Your task to perform on an android device: turn off wifi Image 0: 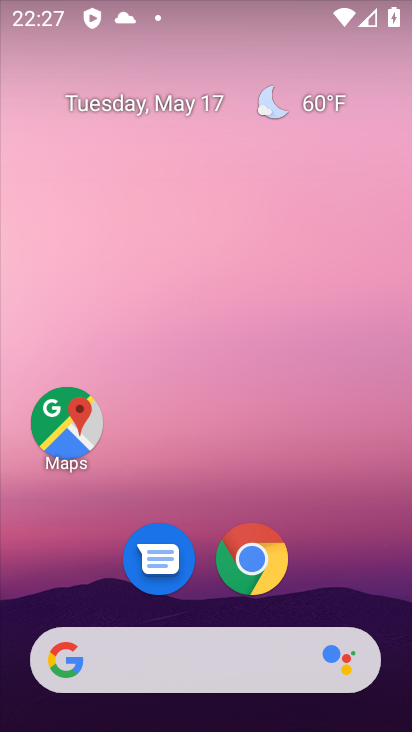
Step 0: drag from (350, 572) to (352, 168)
Your task to perform on an android device: turn off wifi Image 1: 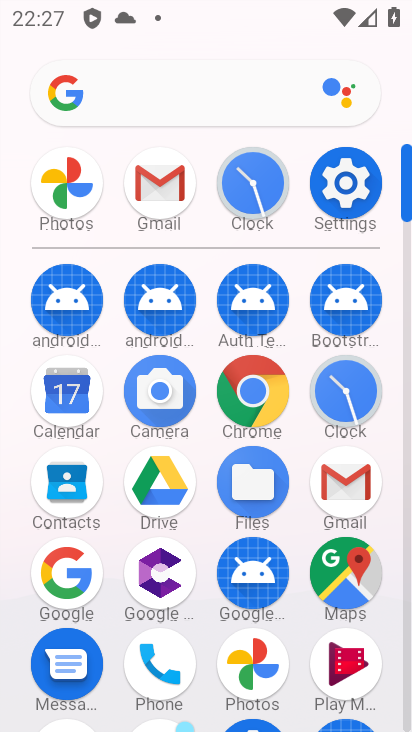
Step 1: click (331, 193)
Your task to perform on an android device: turn off wifi Image 2: 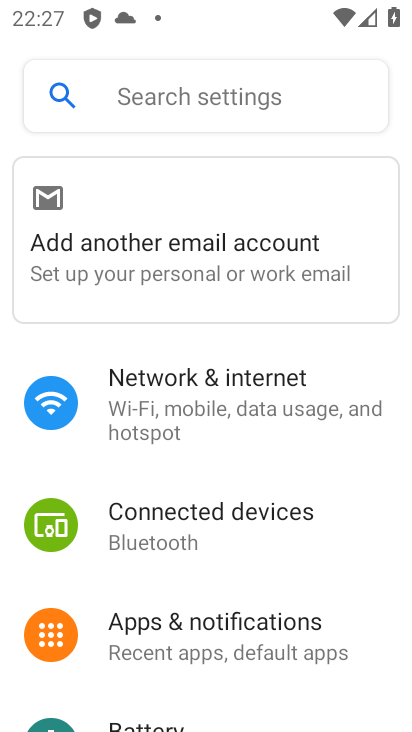
Step 2: click (214, 382)
Your task to perform on an android device: turn off wifi Image 3: 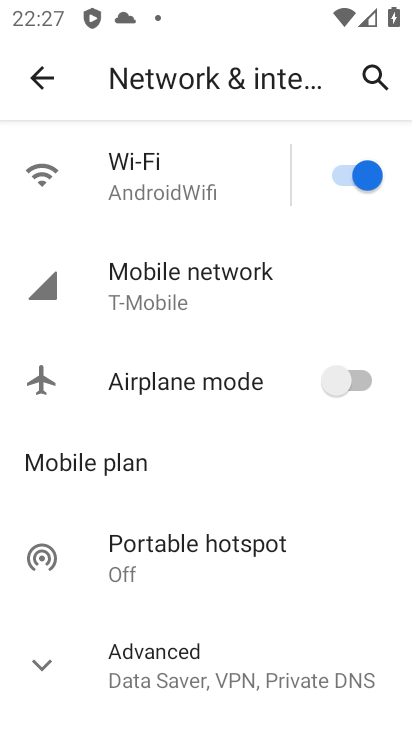
Step 3: click (350, 165)
Your task to perform on an android device: turn off wifi Image 4: 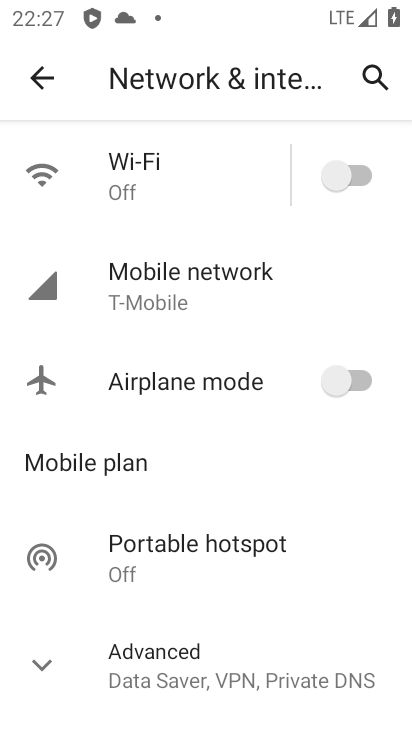
Step 4: task complete